Your task to perform on an android device: change the clock display to digital Image 0: 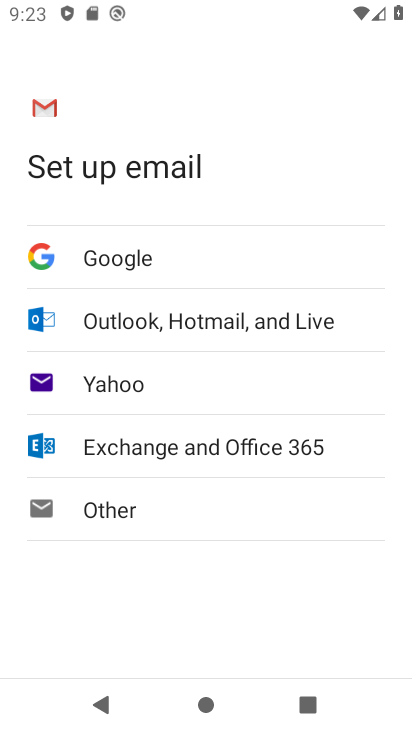
Step 0: press home button
Your task to perform on an android device: change the clock display to digital Image 1: 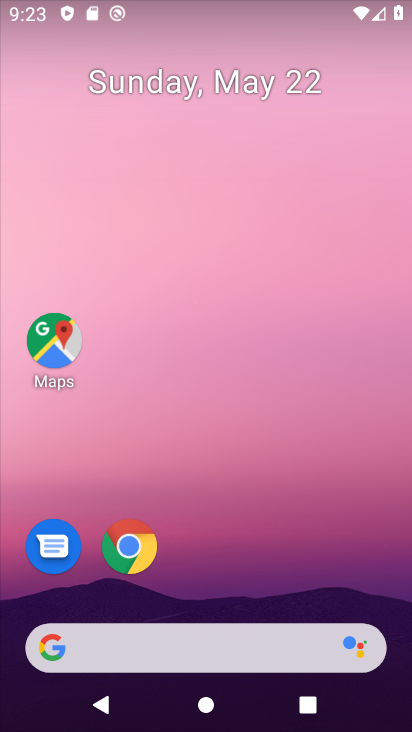
Step 1: drag from (371, 586) to (305, 157)
Your task to perform on an android device: change the clock display to digital Image 2: 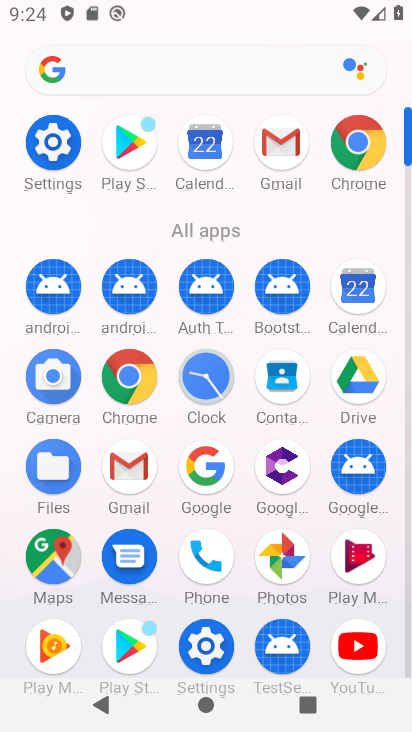
Step 2: click (221, 392)
Your task to perform on an android device: change the clock display to digital Image 3: 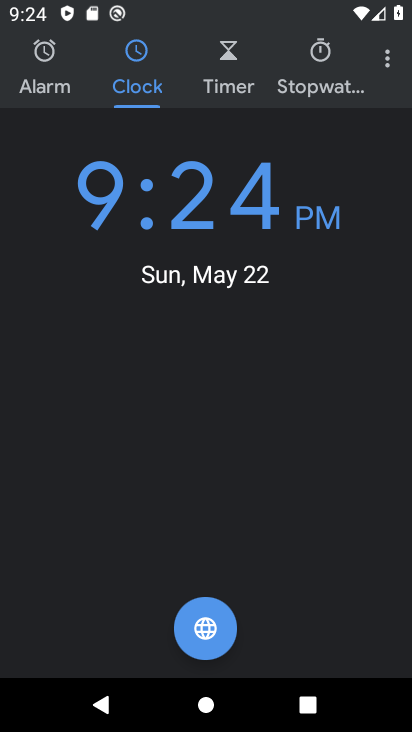
Step 3: click (396, 69)
Your task to perform on an android device: change the clock display to digital Image 4: 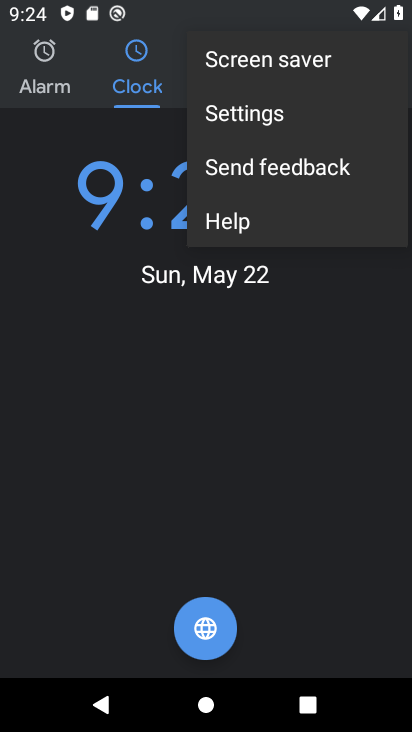
Step 4: click (346, 119)
Your task to perform on an android device: change the clock display to digital Image 5: 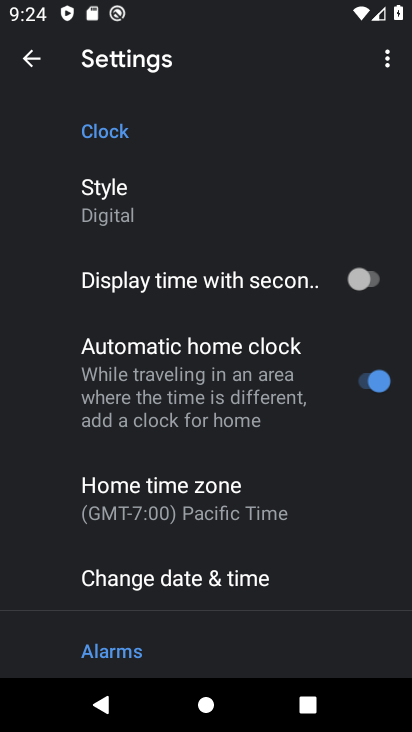
Step 5: click (125, 228)
Your task to perform on an android device: change the clock display to digital Image 6: 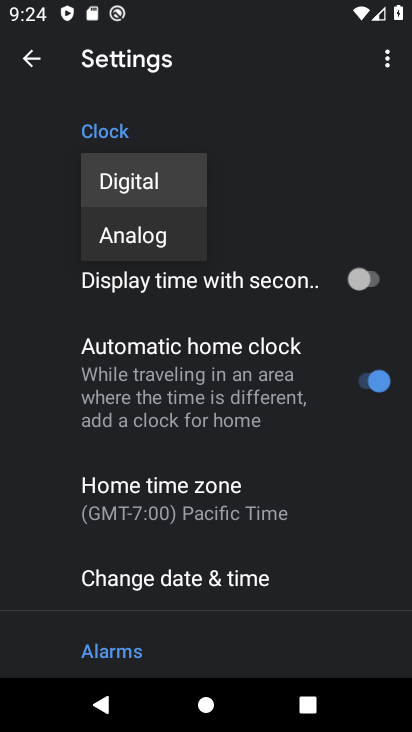
Step 6: task complete